Your task to perform on an android device: Open sound settings Image 0: 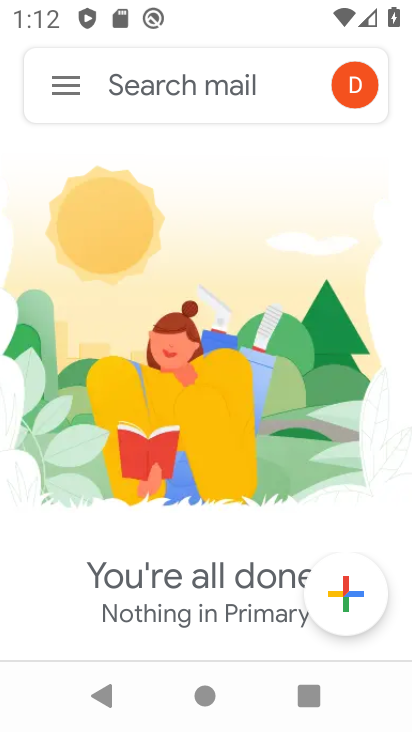
Step 0: press home button
Your task to perform on an android device: Open sound settings Image 1: 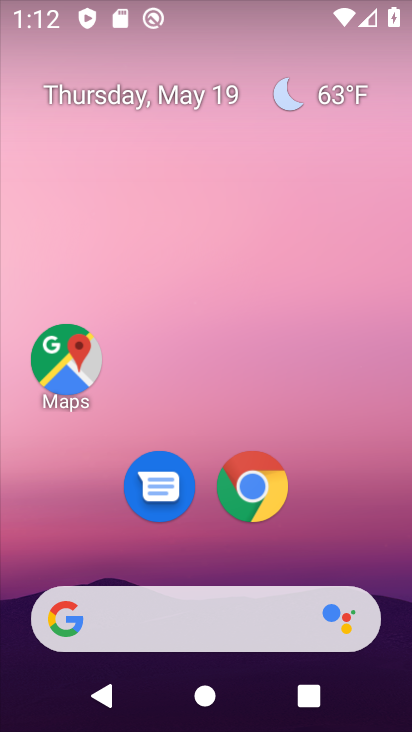
Step 1: drag from (322, 527) to (243, 0)
Your task to perform on an android device: Open sound settings Image 2: 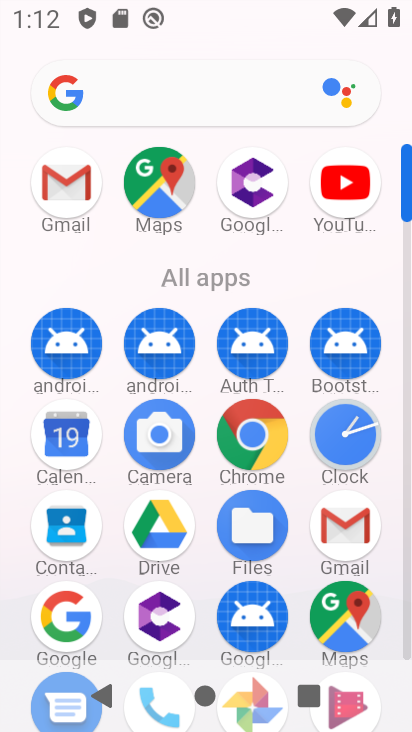
Step 2: drag from (214, 571) to (233, 232)
Your task to perform on an android device: Open sound settings Image 3: 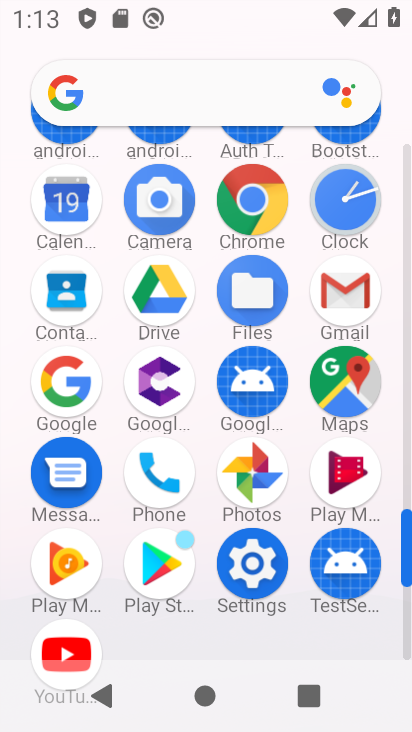
Step 3: click (250, 556)
Your task to perform on an android device: Open sound settings Image 4: 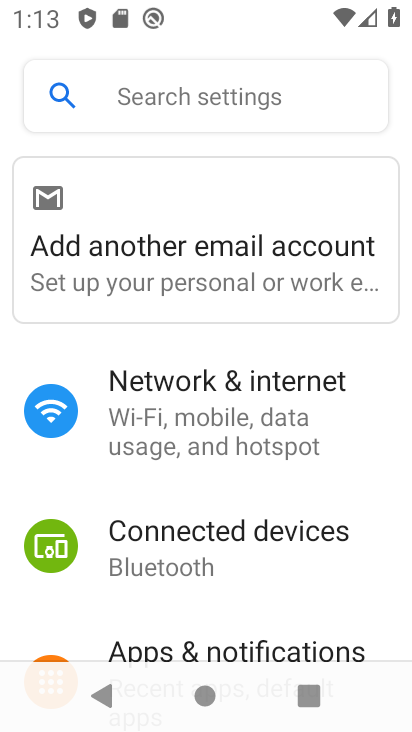
Step 4: drag from (176, 569) to (239, 177)
Your task to perform on an android device: Open sound settings Image 5: 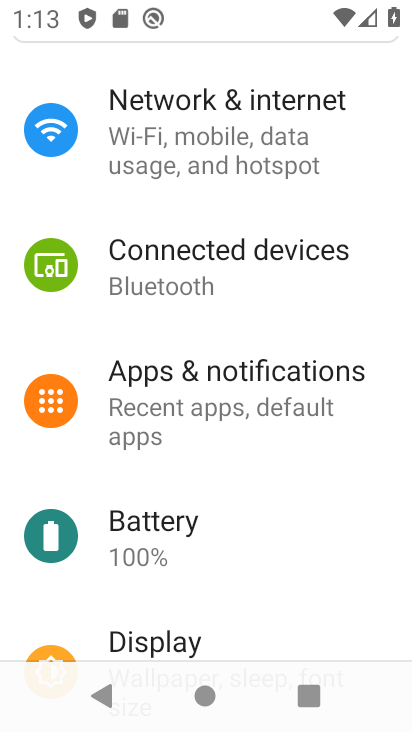
Step 5: drag from (262, 530) to (276, 84)
Your task to perform on an android device: Open sound settings Image 6: 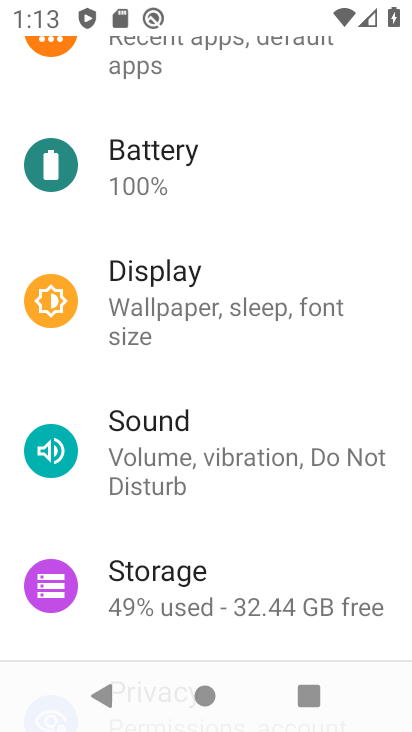
Step 6: click (241, 486)
Your task to perform on an android device: Open sound settings Image 7: 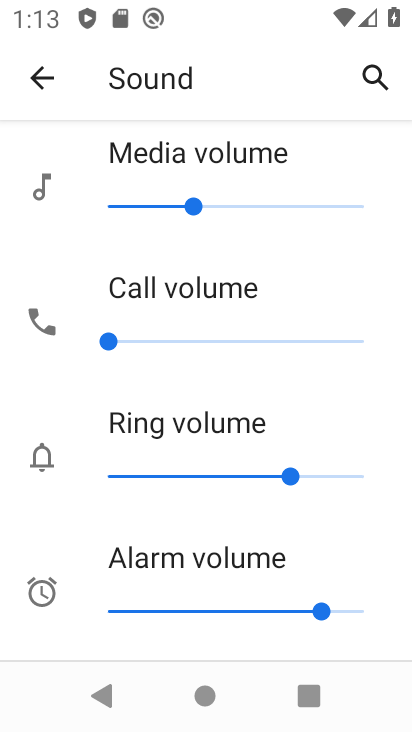
Step 7: task complete